Your task to perform on an android device: turn off translation in the chrome app Image 0: 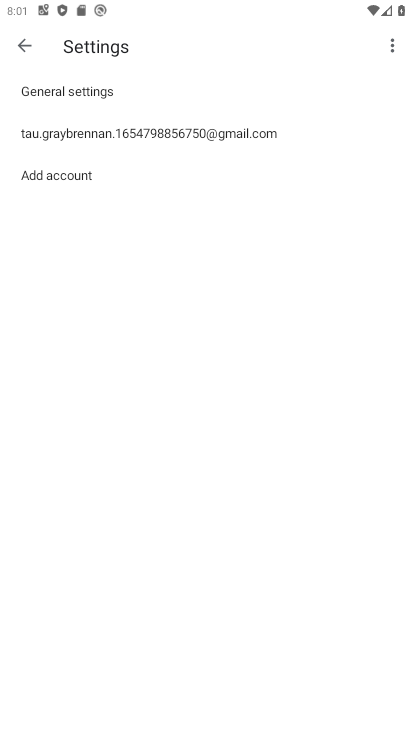
Step 0: press home button
Your task to perform on an android device: turn off translation in the chrome app Image 1: 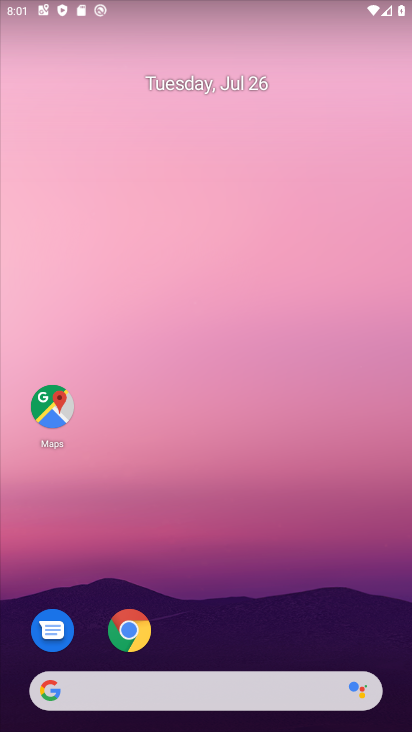
Step 1: click (137, 616)
Your task to perform on an android device: turn off translation in the chrome app Image 2: 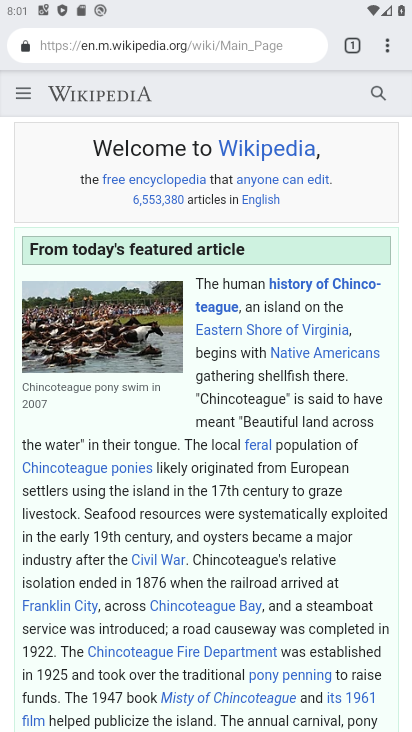
Step 2: click (382, 49)
Your task to perform on an android device: turn off translation in the chrome app Image 3: 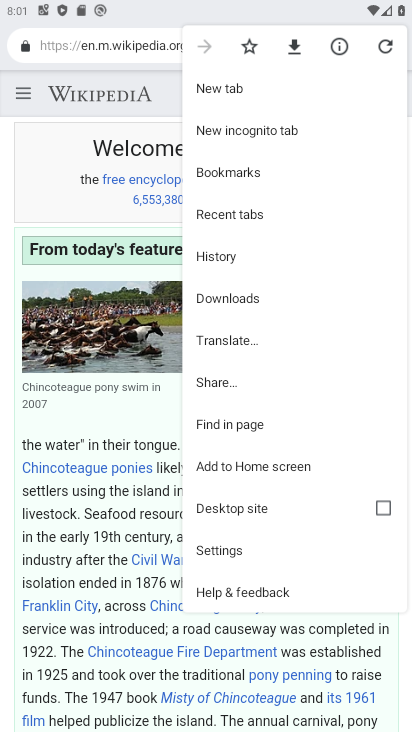
Step 3: click (251, 542)
Your task to perform on an android device: turn off translation in the chrome app Image 4: 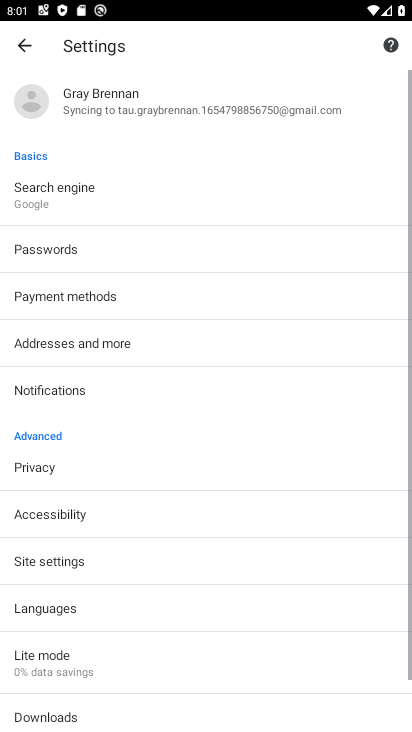
Step 4: click (251, 542)
Your task to perform on an android device: turn off translation in the chrome app Image 5: 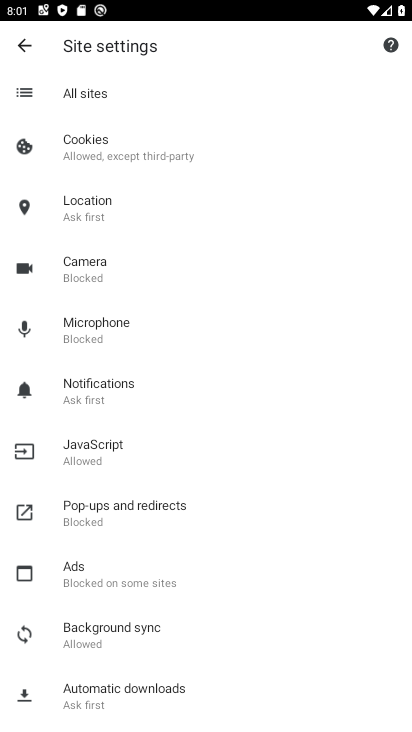
Step 5: task complete